Your task to perform on an android device: create a new album in the google photos Image 0: 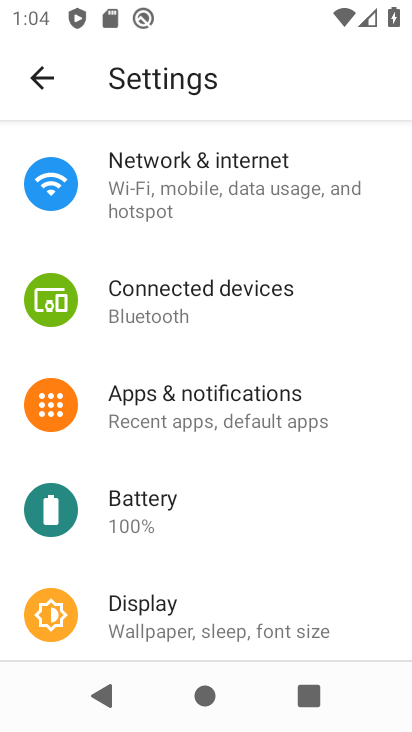
Step 0: press home button
Your task to perform on an android device: create a new album in the google photos Image 1: 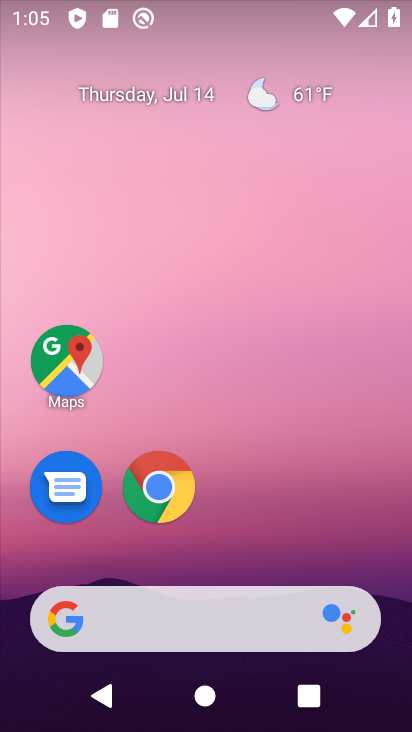
Step 1: drag from (321, 548) to (323, 81)
Your task to perform on an android device: create a new album in the google photos Image 2: 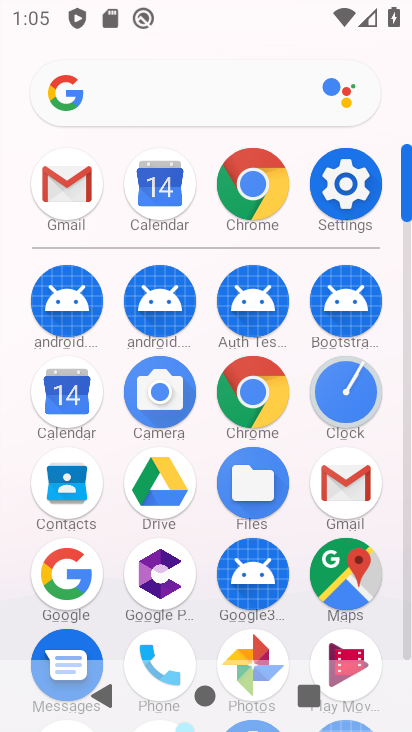
Step 2: drag from (383, 539) to (410, 268)
Your task to perform on an android device: create a new album in the google photos Image 3: 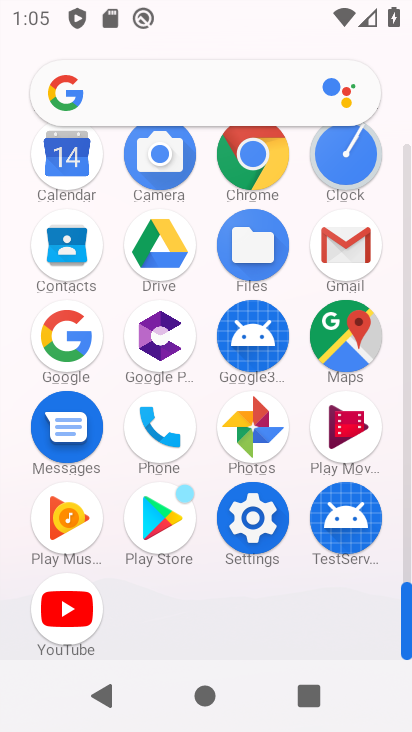
Step 3: click (260, 424)
Your task to perform on an android device: create a new album in the google photos Image 4: 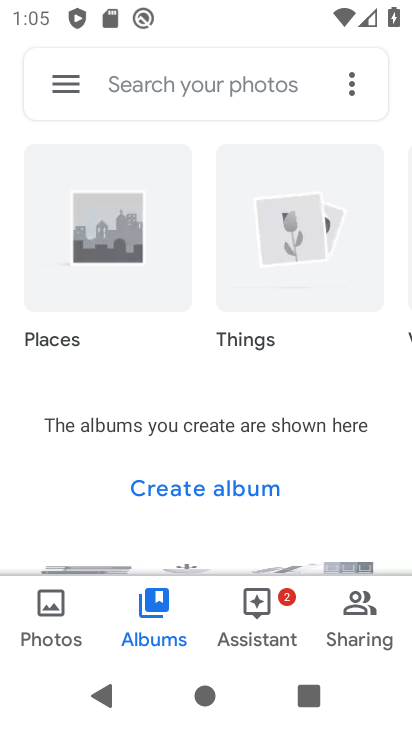
Step 4: click (212, 492)
Your task to perform on an android device: create a new album in the google photos Image 5: 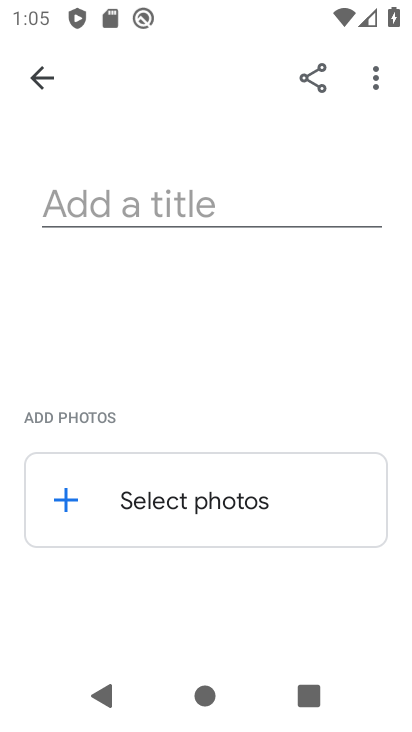
Step 5: click (248, 212)
Your task to perform on an android device: create a new album in the google photos Image 6: 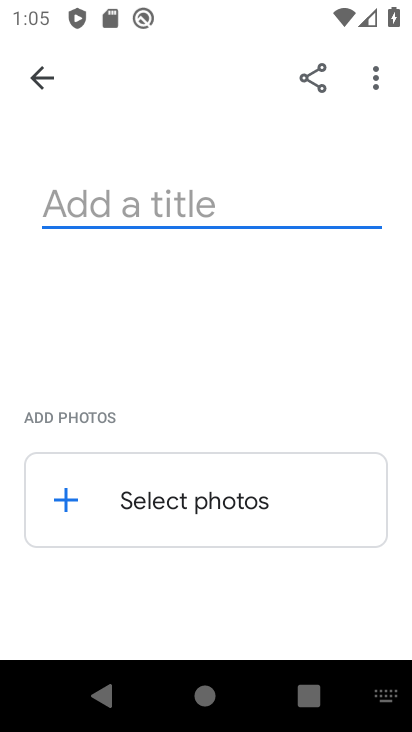
Step 6: type "fav"
Your task to perform on an android device: create a new album in the google photos Image 7: 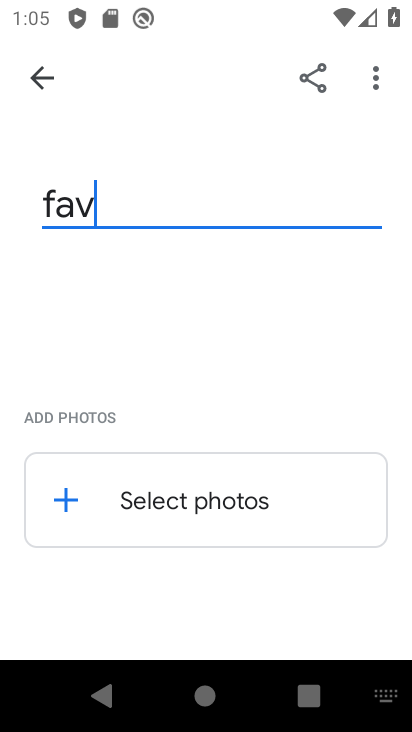
Step 7: click (119, 504)
Your task to perform on an android device: create a new album in the google photos Image 8: 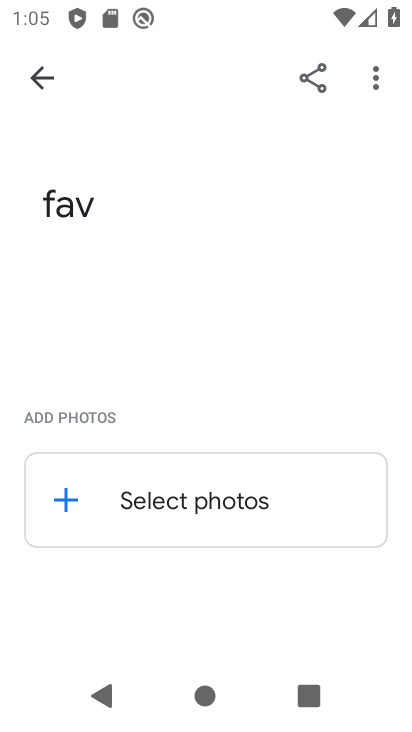
Step 8: click (69, 490)
Your task to perform on an android device: create a new album in the google photos Image 9: 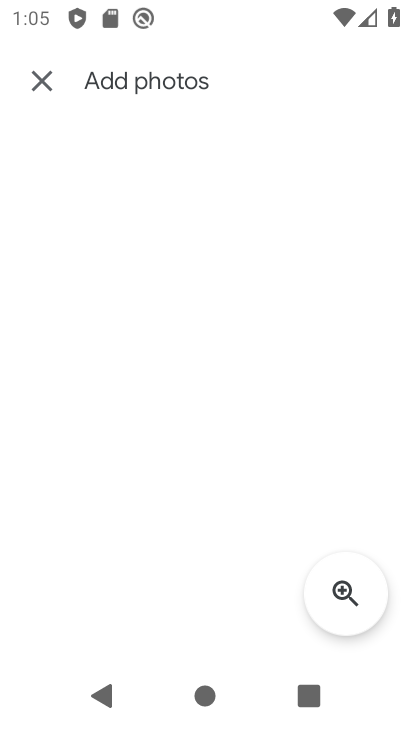
Step 9: task complete